Your task to perform on an android device: turn vacation reply on in the gmail app Image 0: 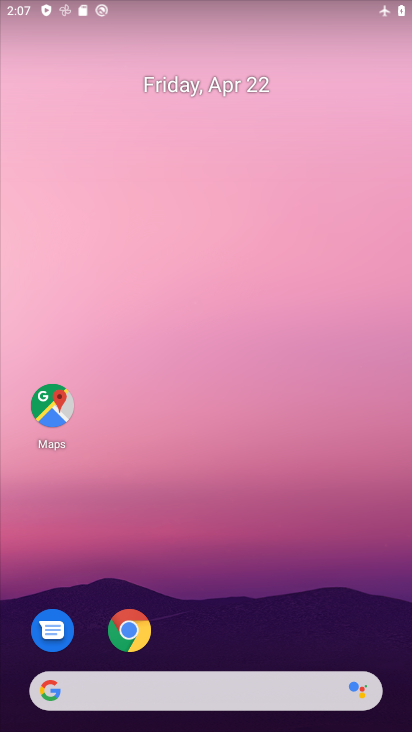
Step 0: drag from (347, 584) to (382, 136)
Your task to perform on an android device: turn vacation reply on in the gmail app Image 1: 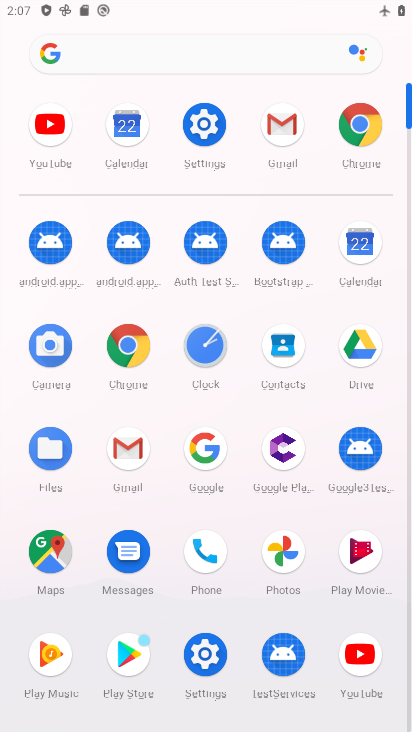
Step 1: click (133, 452)
Your task to perform on an android device: turn vacation reply on in the gmail app Image 2: 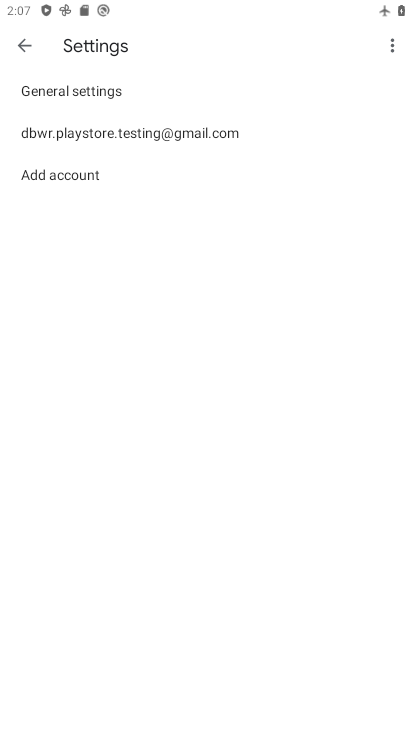
Step 2: click (145, 131)
Your task to perform on an android device: turn vacation reply on in the gmail app Image 3: 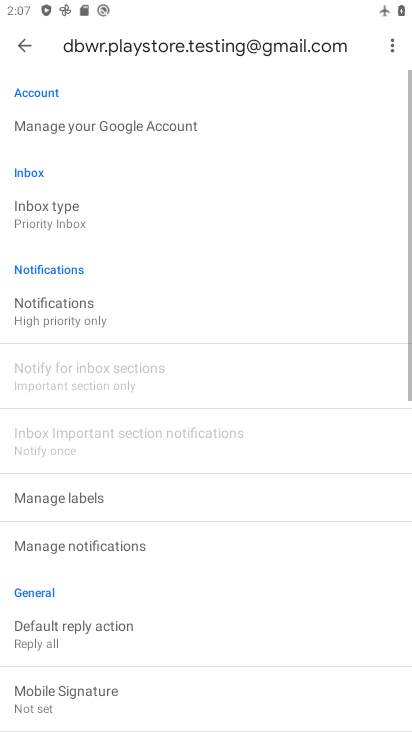
Step 3: drag from (150, 636) to (195, 356)
Your task to perform on an android device: turn vacation reply on in the gmail app Image 4: 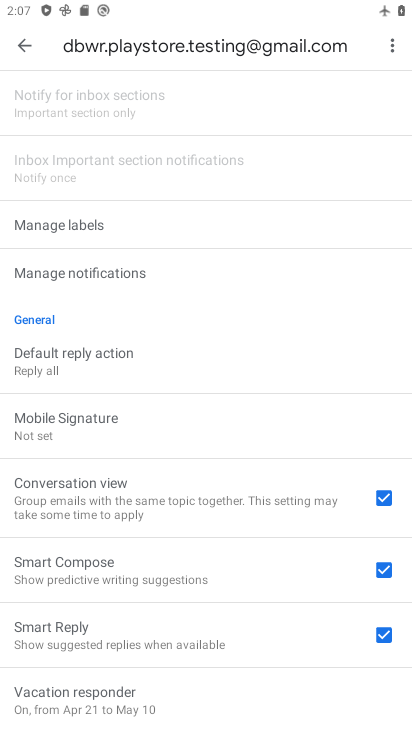
Step 4: drag from (206, 647) to (226, 284)
Your task to perform on an android device: turn vacation reply on in the gmail app Image 5: 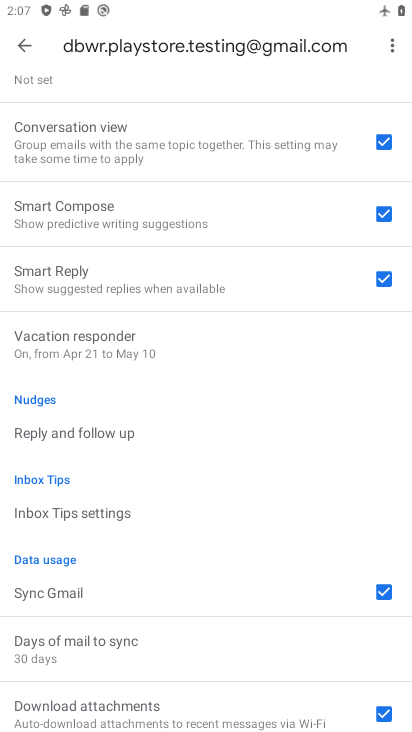
Step 5: click (86, 344)
Your task to perform on an android device: turn vacation reply on in the gmail app Image 6: 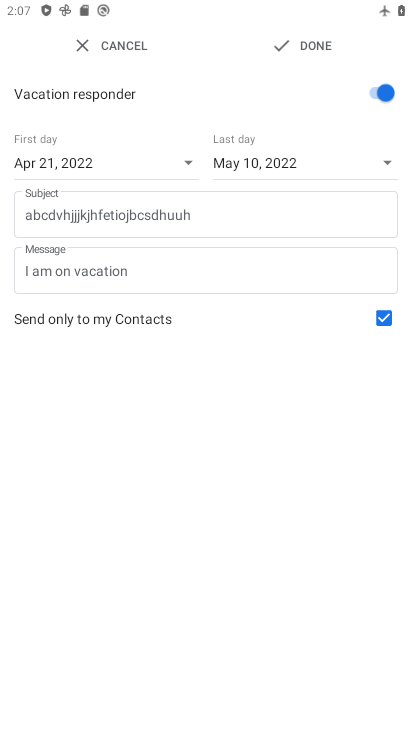
Step 6: task complete